Your task to perform on an android device: toggle airplane mode Image 0: 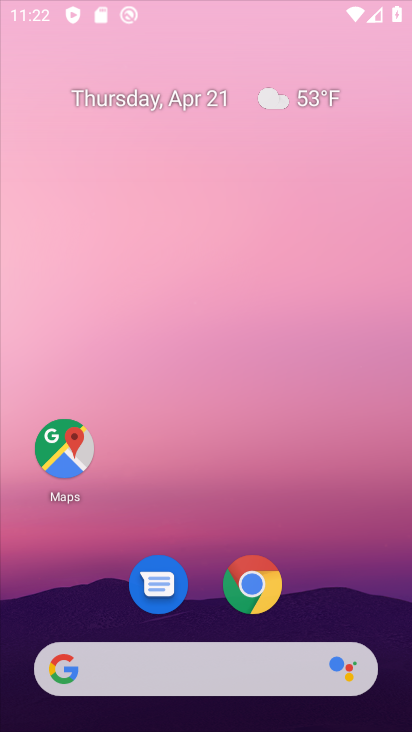
Step 0: click (243, 584)
Your task to perform on an android device: toggle airplane mode Image 1: 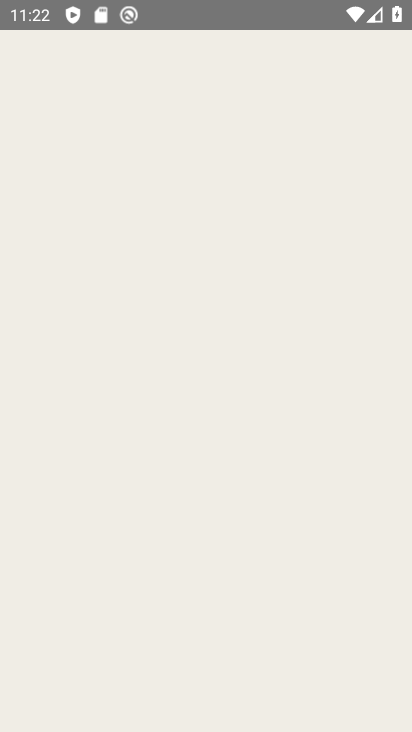
Step 1: press back button
Your task to perform on an android device: toggle airplane mode Image 2: 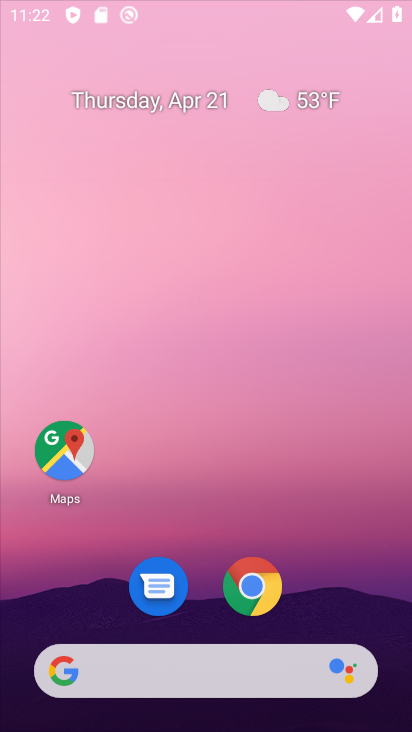
Step 2: press back button
Your task to perform on an android device: toggle airplane mode Image 3: 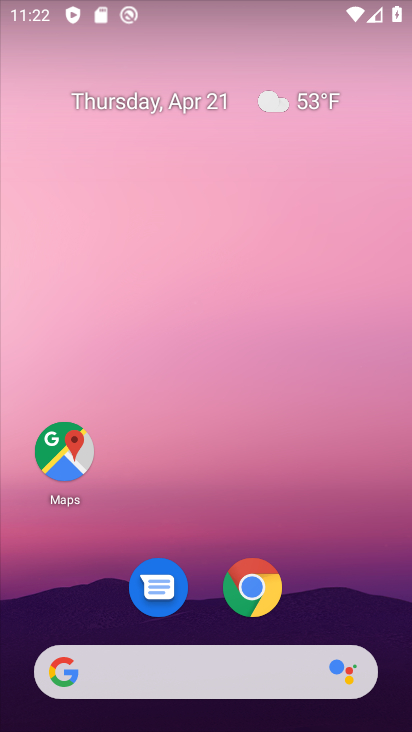
Step 3: press back button
Your task to perform on an android device: toggle airplane mode Image 4: 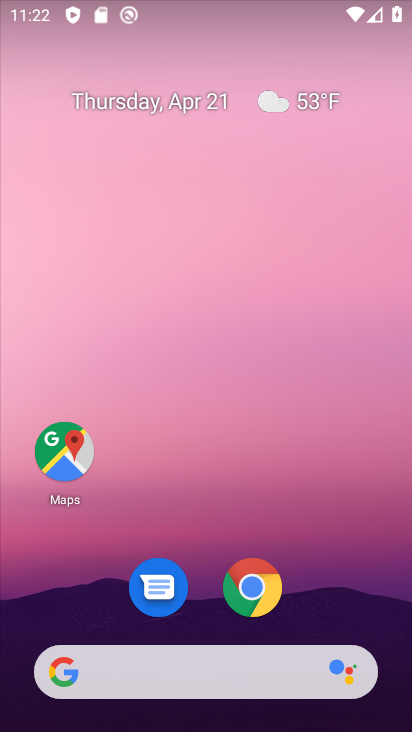
Step 4: drag from (361, 196) to (256, 491)
Your task to perform on an android device: toggle airplane mode Image 5: 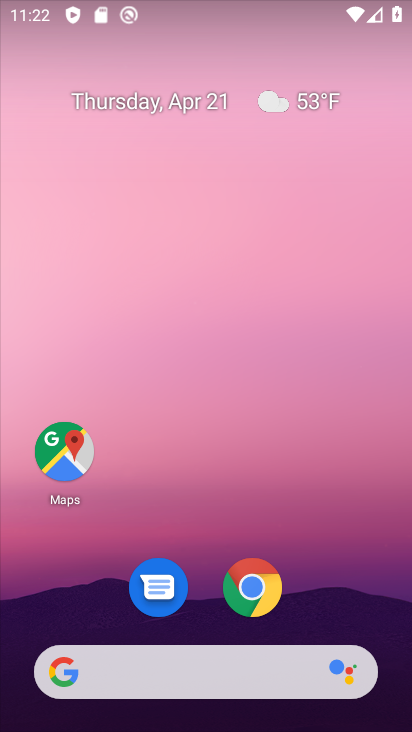
Step 5: drag from (321, 0) to (268, 539)
Your task to perform on an android device: toggle airplane mode Image 6: 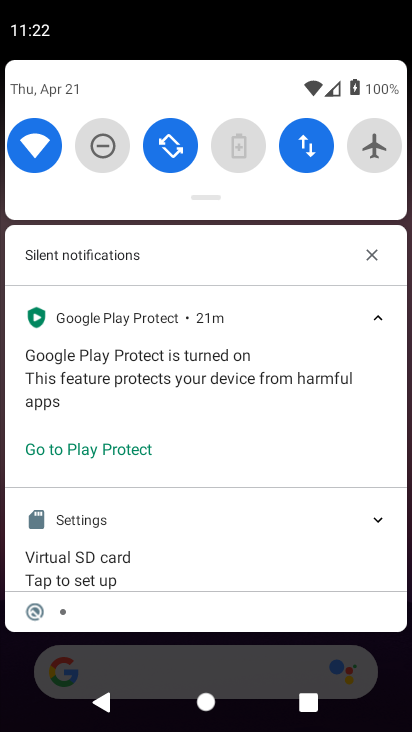
Step 6: click (376, 143)
Your task to perform on an android device: toggle airplane mode Image 7: 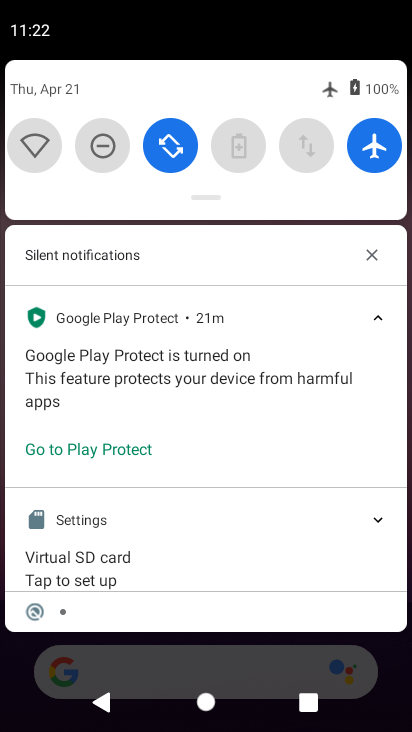
Step 7: task complete